Your task to perform on an android device: Go to ESPN.com Image 0: 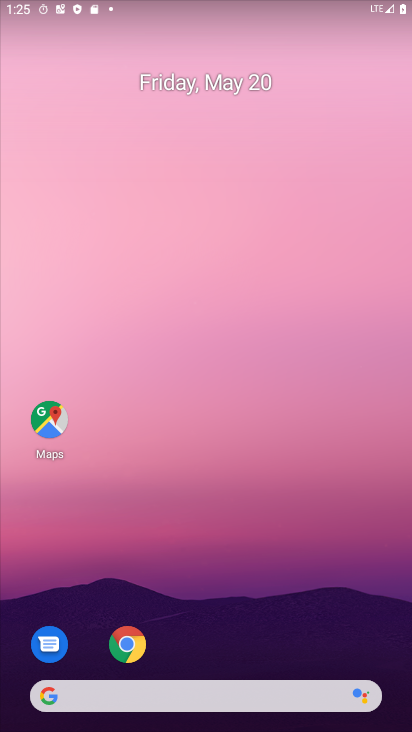
Step 0: drag from (175, 354) to (121, 664)
Your task to perform on an android device: Go to ESPN.com Image 1: 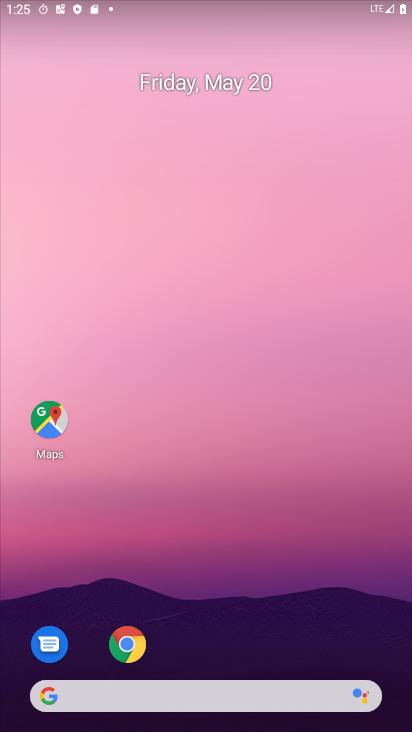
Step 1: click (116, 638)
Your task to perform on an android device: Go to ESPN.com Image 2: 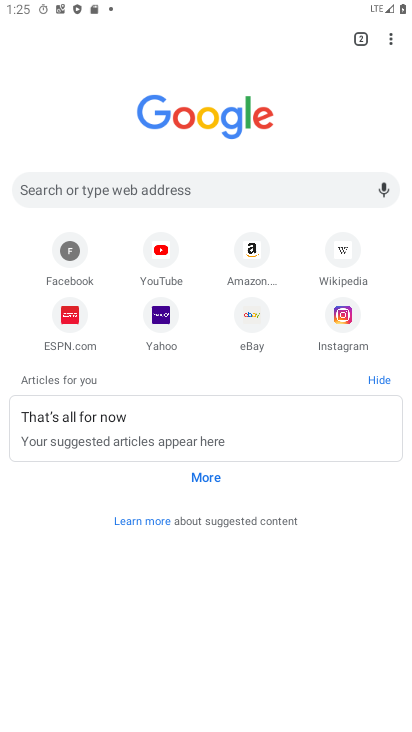
Step 2: click (68, 349)
Your task to perform on an android device: Go to ESPN.com Image 3: 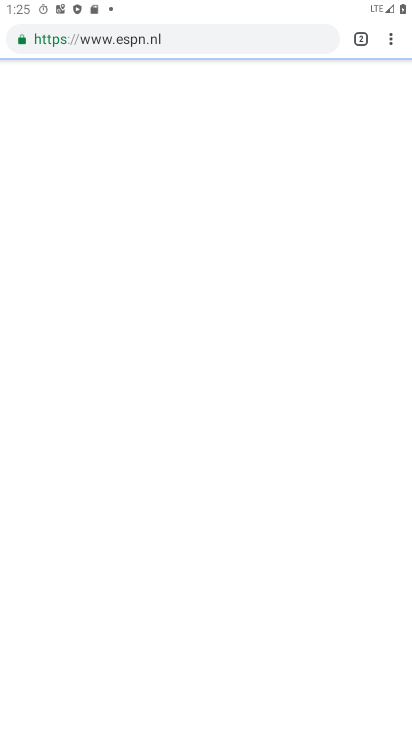
Step 3: task complete